Your task to perform on an android device: allow notifications from all sites in the chrome app Image 0: 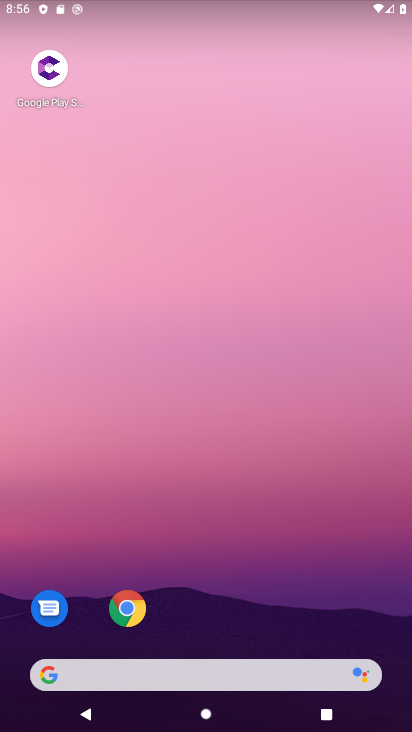
Step 0: click (131, 613)
Your task to perform on an android device: allow notifications from all sites in the chrome app Image 1: 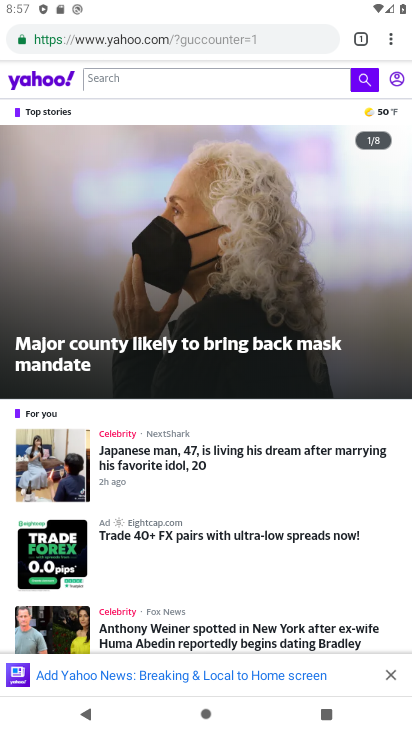
Step 1: drag from (389, 33) to (266, 477)
Your task to perform on an android device: allow notifications from all sites in the chrome app Image 2: 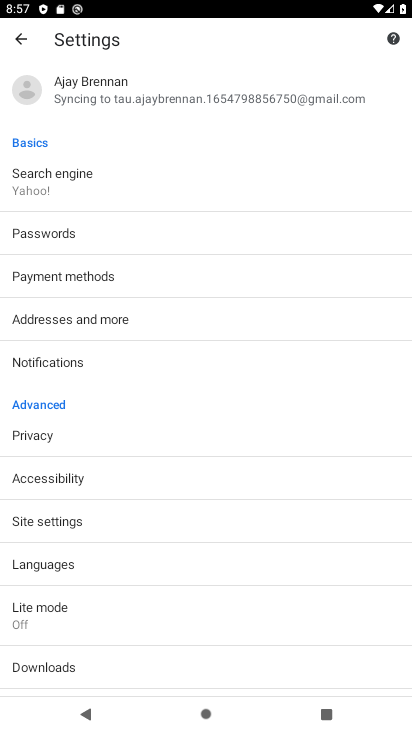
Step 2: click (165, 522)
Your task to perform on an android device: allow notifications from all sites in the chrome app Image 3: 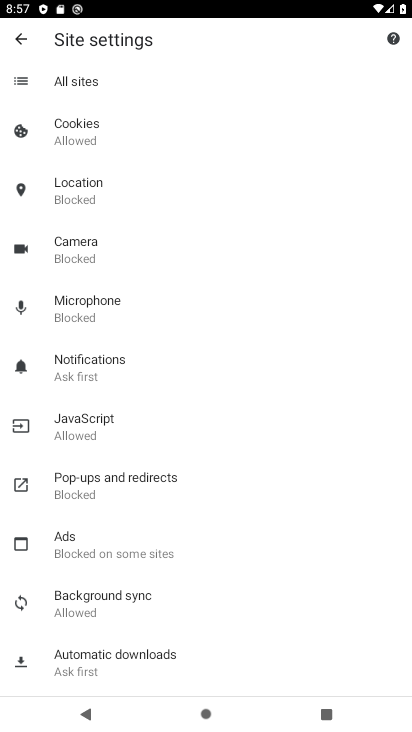
Step 3: click (101, 367)
Your task to perform on an android device: allow notifications from all sites in the chrome app Image 4: 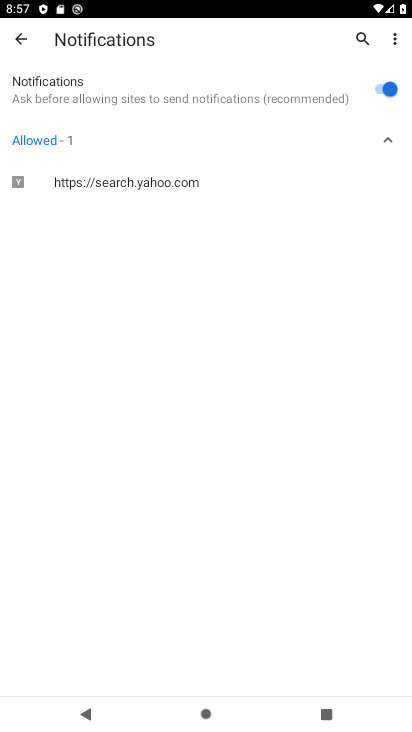
Step 4: task complete